Your task to perform on an android device: Go to location settings Image 0: 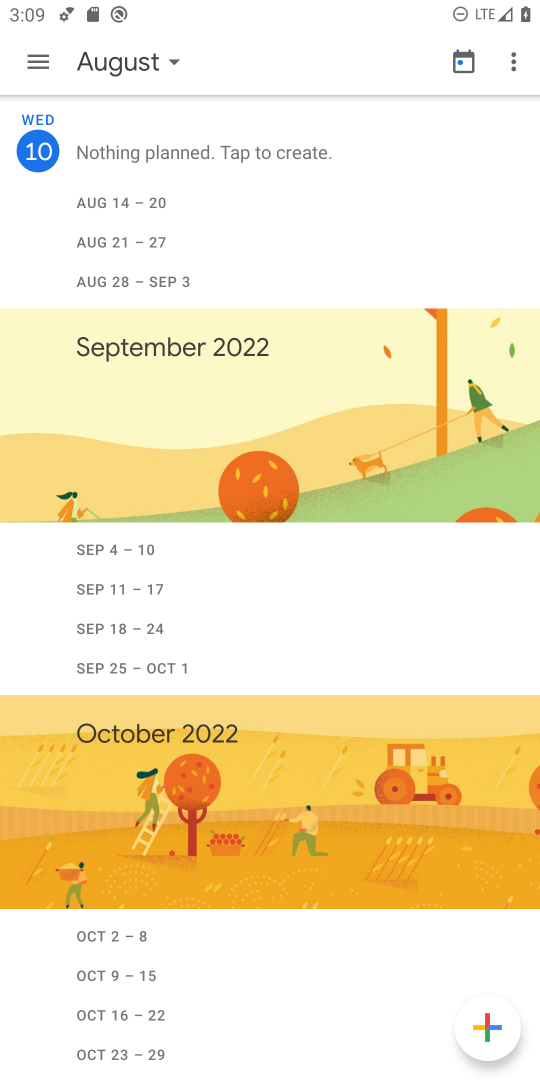
Step 0: press home button
Your task to perform on an android device: Go to location settings Image 1: 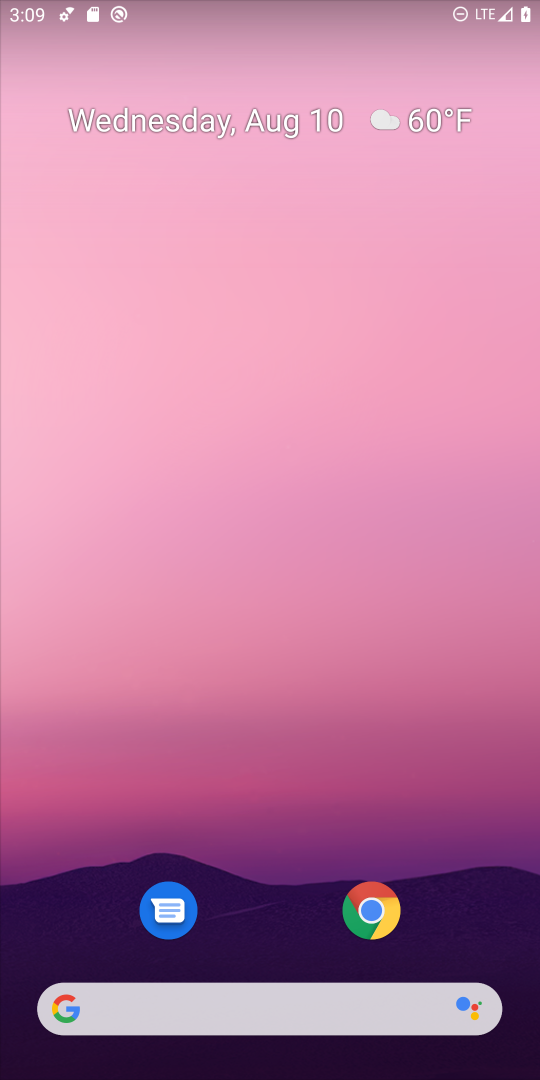
Step 1: drag from (239, 919) to (47, 15)
Your task to perform on an android device: Go to location settings Image 2: 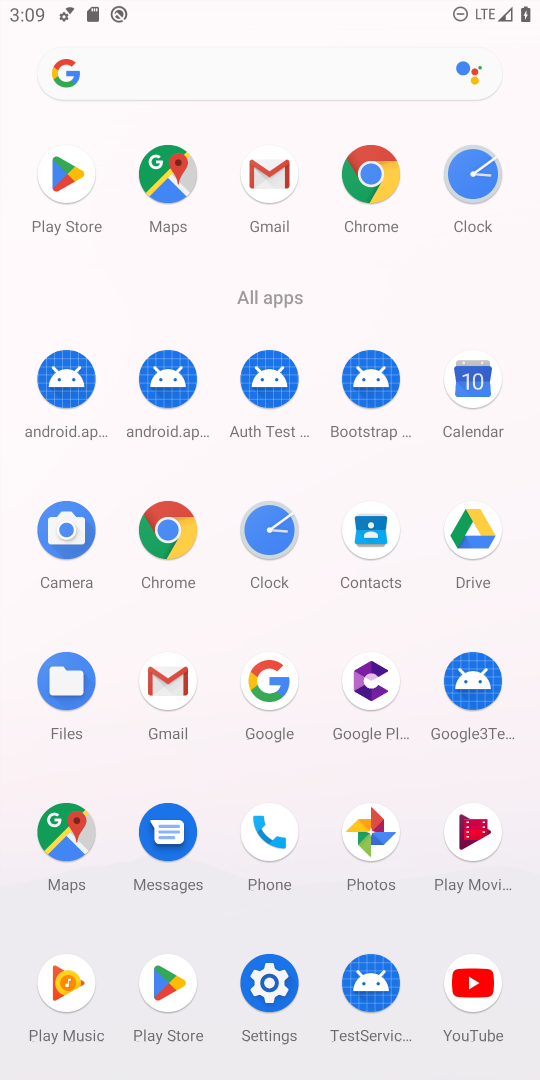
Step 2: click (264, 989)
Your task to perform on an android device: Go to location settings Image 3: 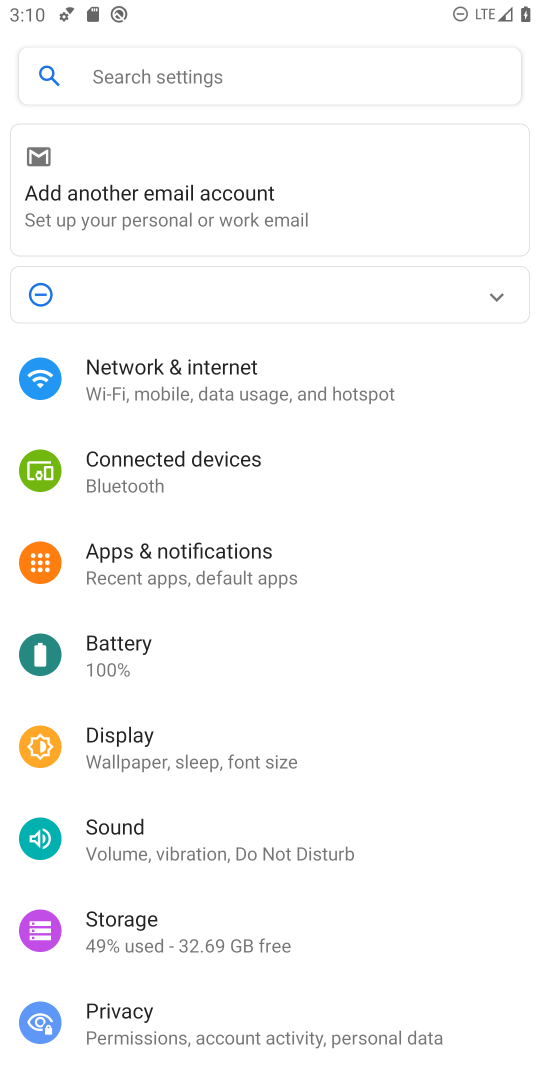
Step 3: drag from (204, 993) to (175, 574)
Your task to perform on an android device: Go to location settings Image 4: 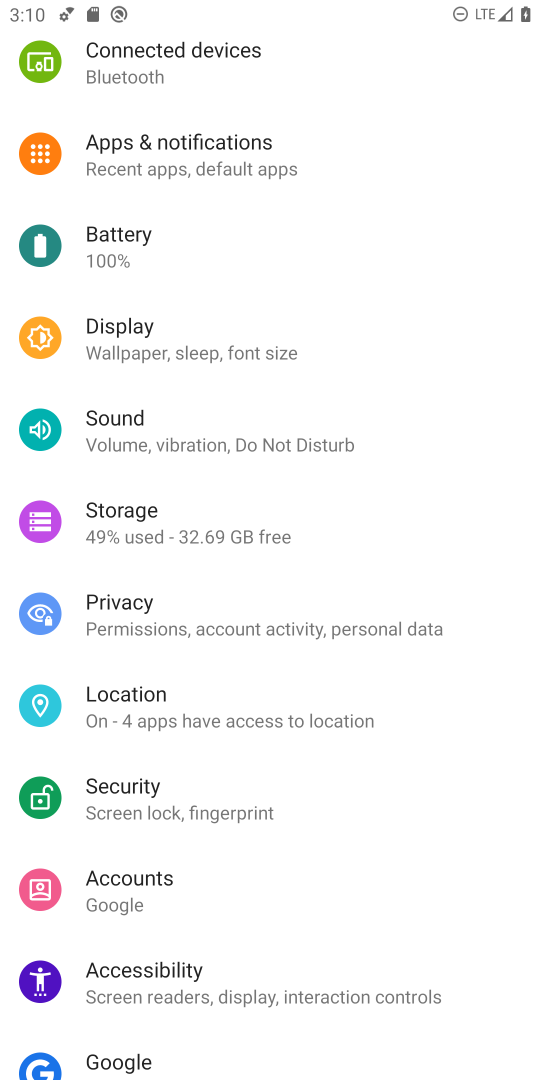
Step 4: click (116, 721)
Your task to perform on an android device: Go to location settings Image 5: 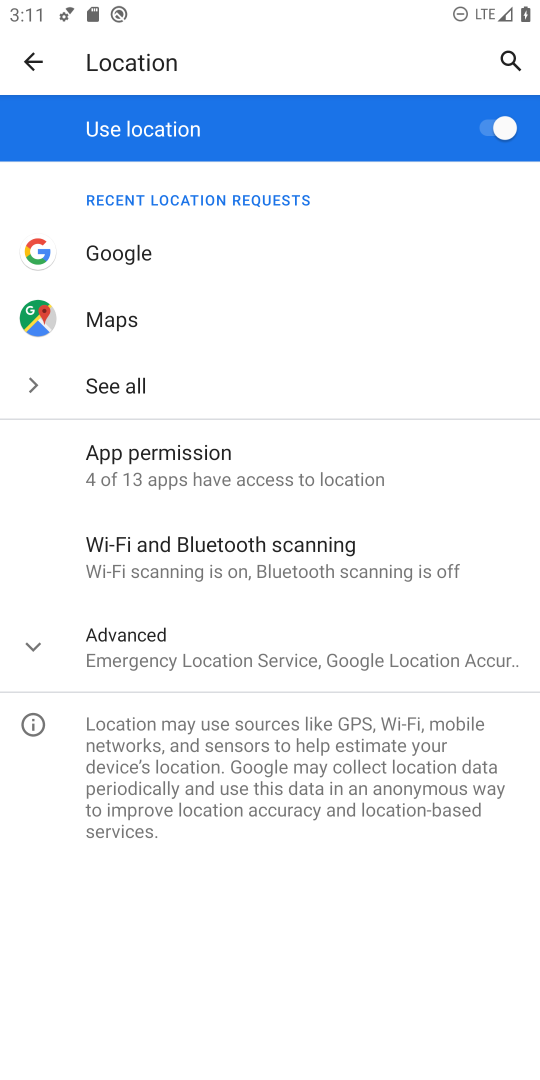
Step 5: task complete